Your task to perform on an android device: Open wifi settings Image 0: 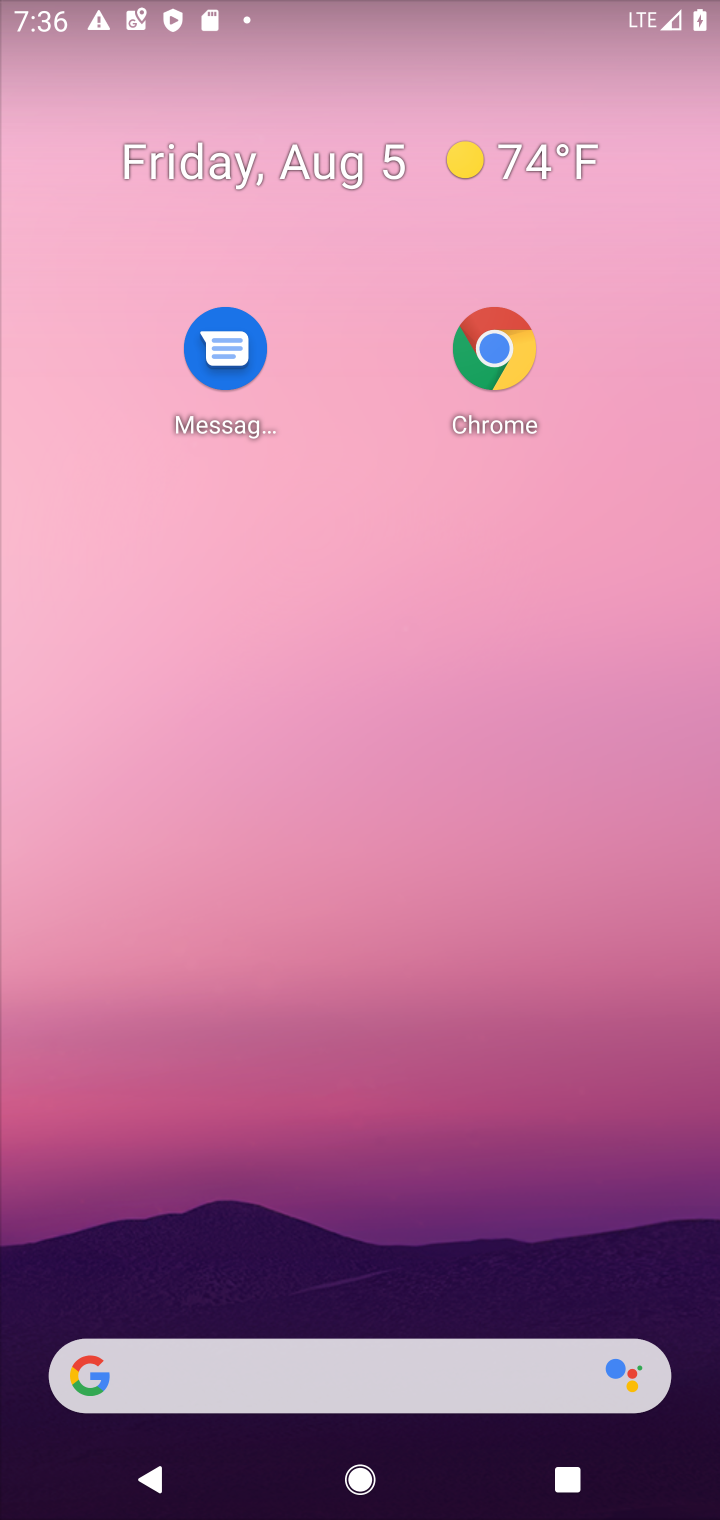
Step 0: press home button
Your task to perform on an android device: Open wifi settings Image 1: 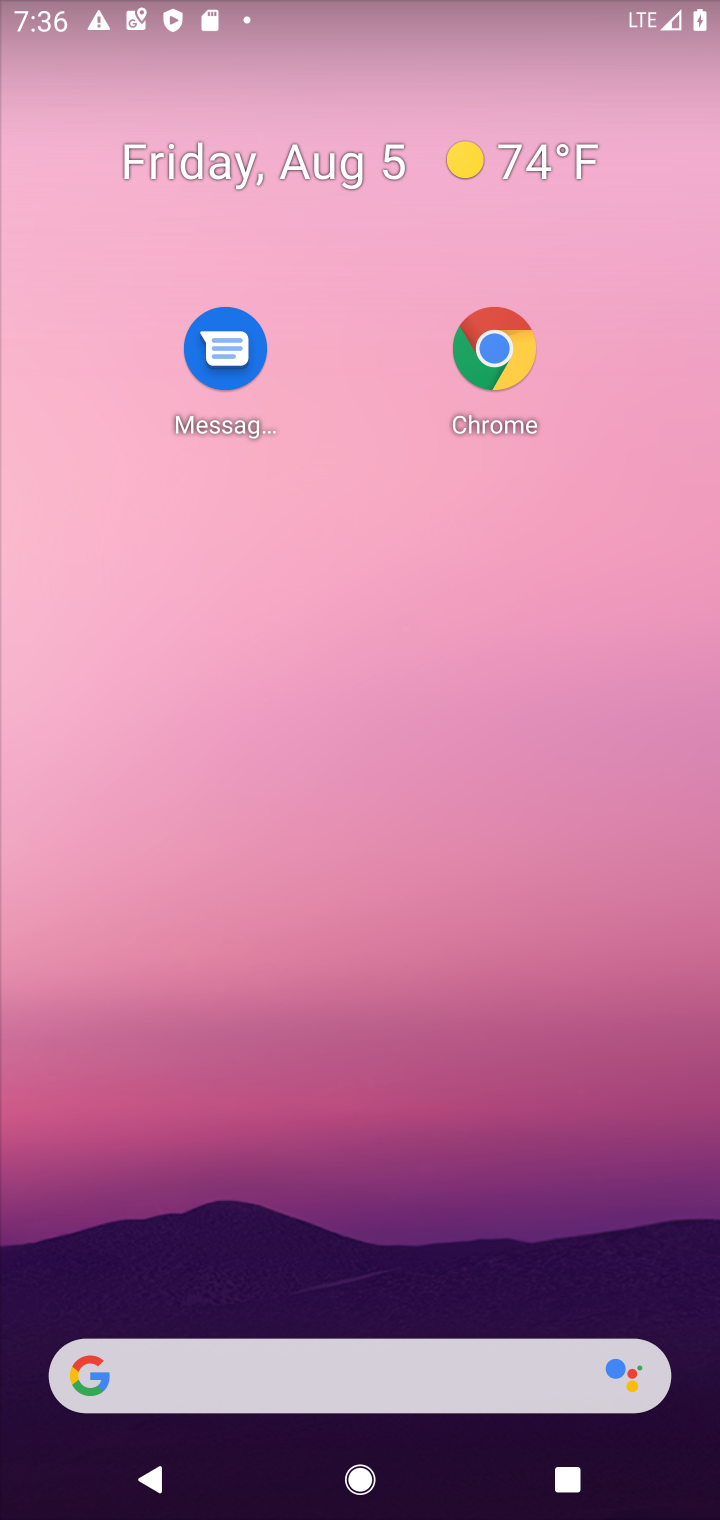
Step 1: drag from (421, 1368) to (386, 159)
Your task to perform on an android device: Open wifi settings Image 2: 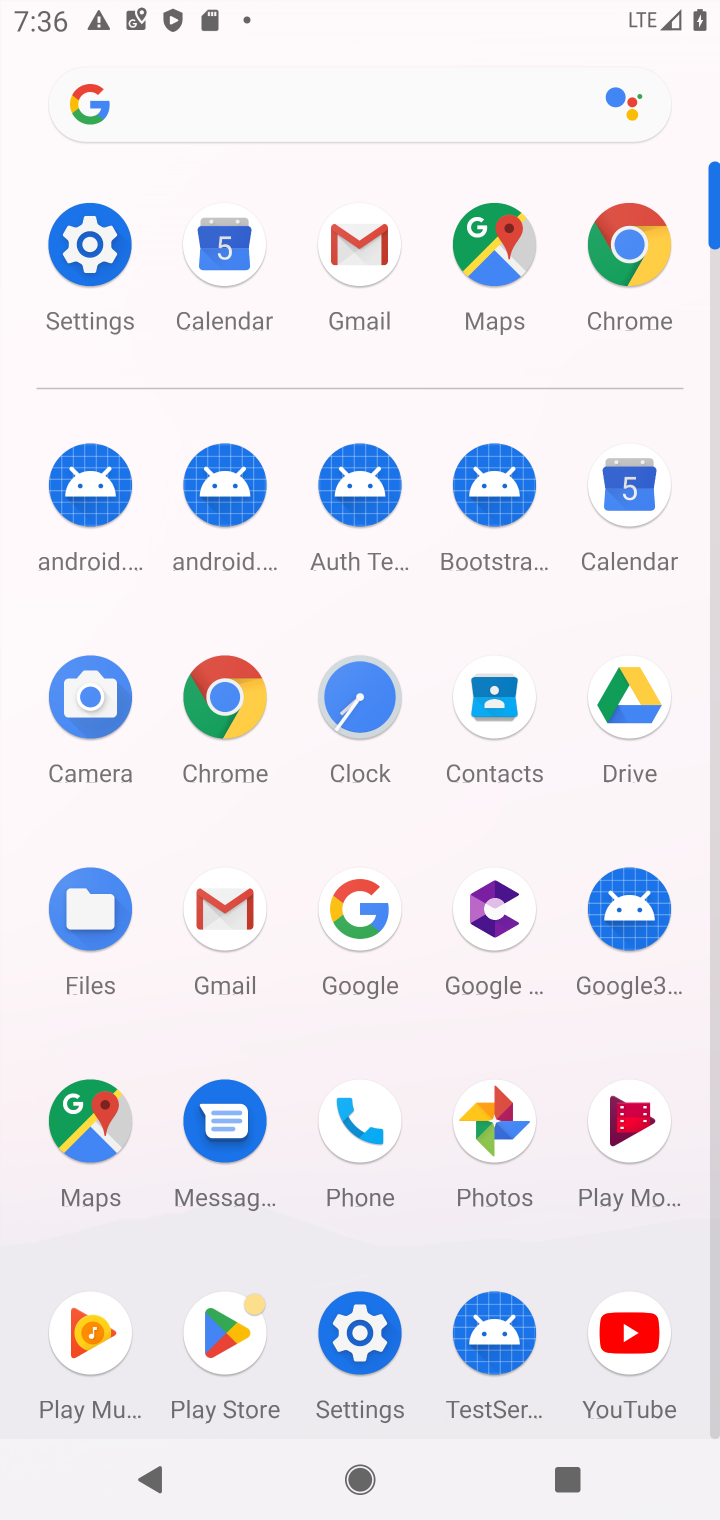
Step 2: click (75, 267)
Your task to perform on an android device: Open wifi settings Image 3: 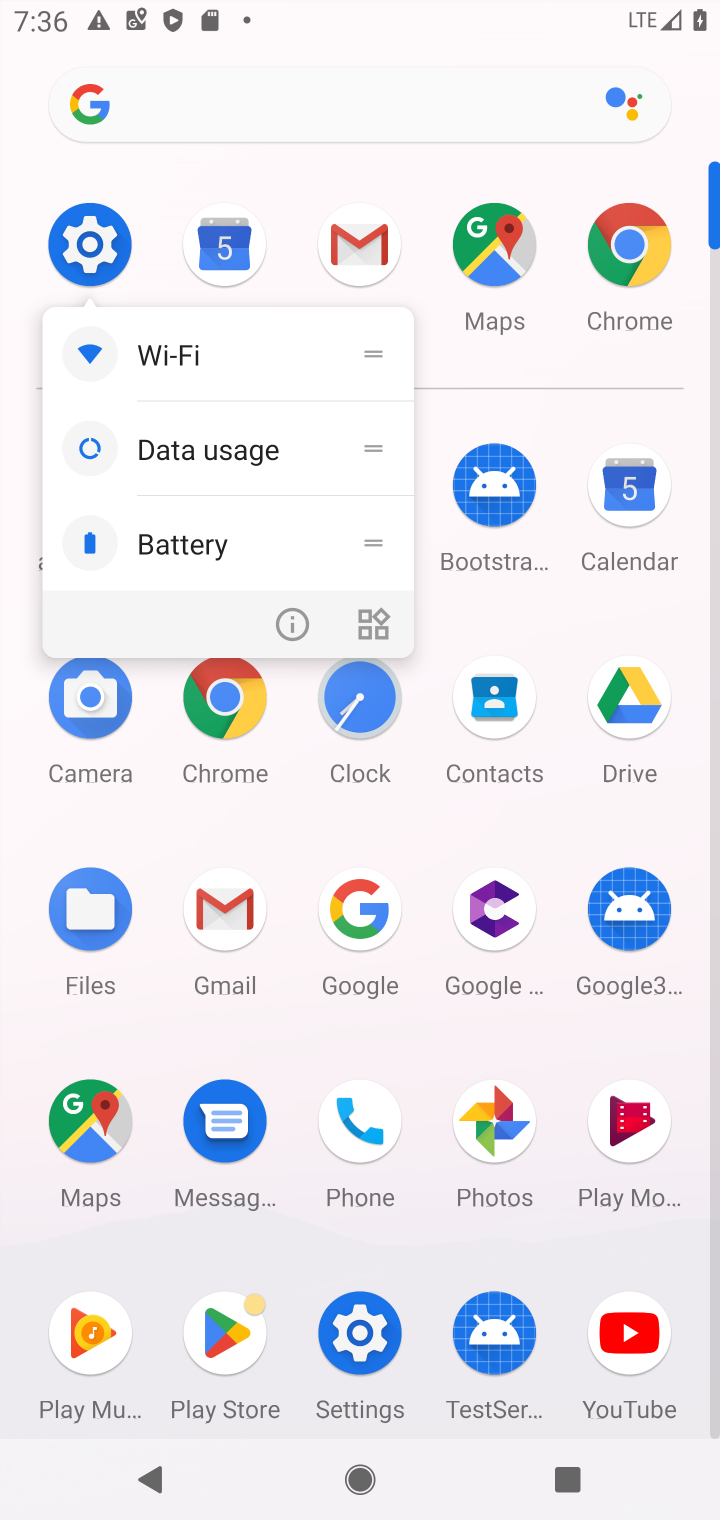
Step 3: click (89, 278)
Your task to perform on an android device: Open wifi settings Image 4: 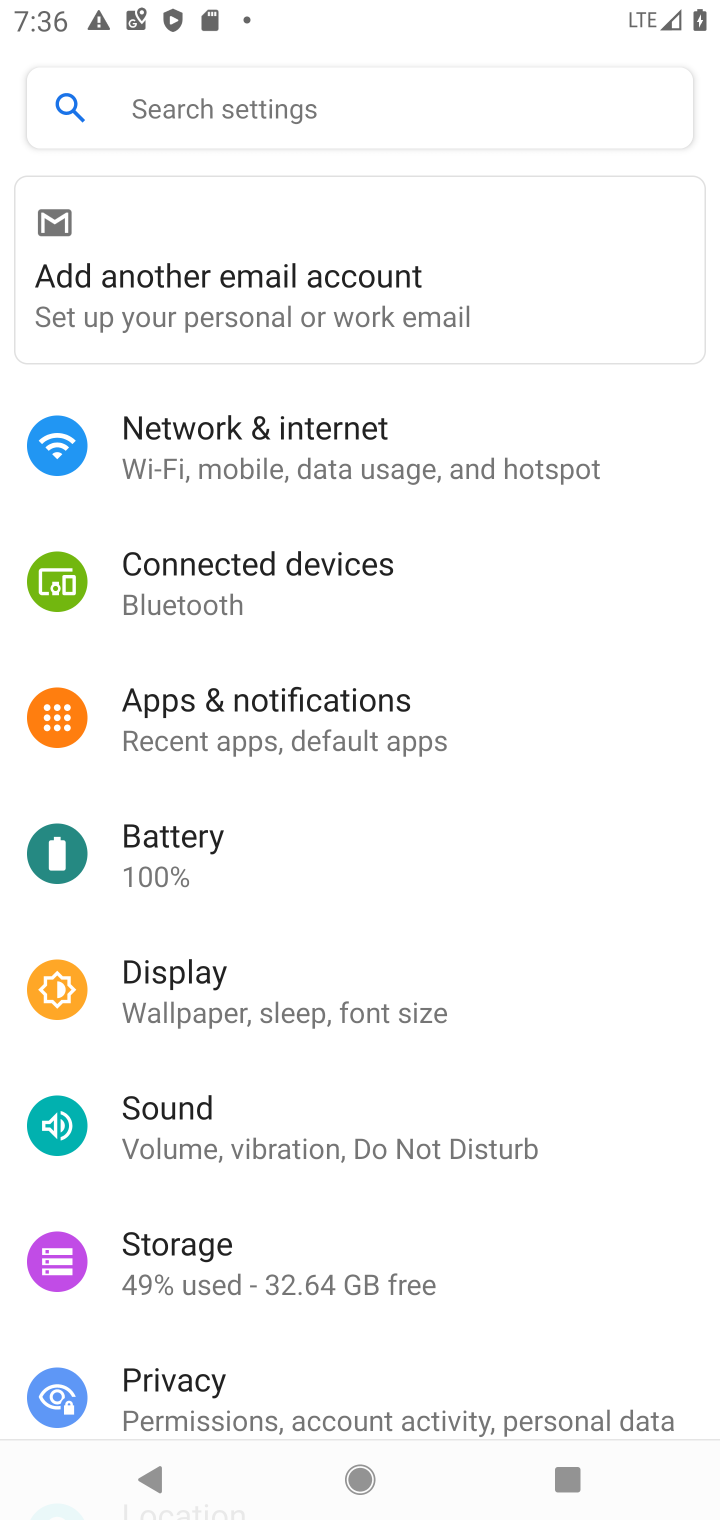
Step 4: click (301, 444)
Your task to perform on an android device: Open wifi settings Image 5: 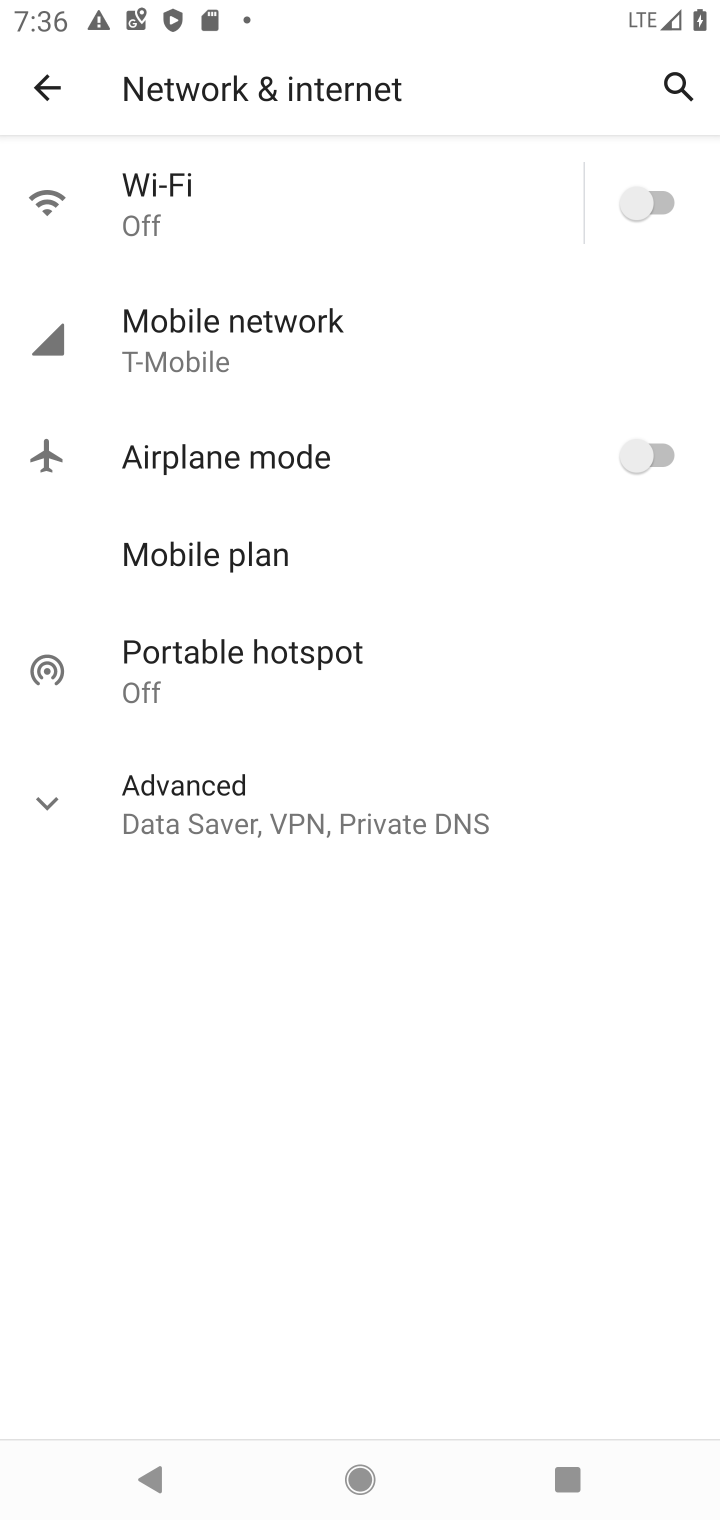
Step 5: click (184, 241)
Your task to perform on an android device: Open wifi settings Image 6: 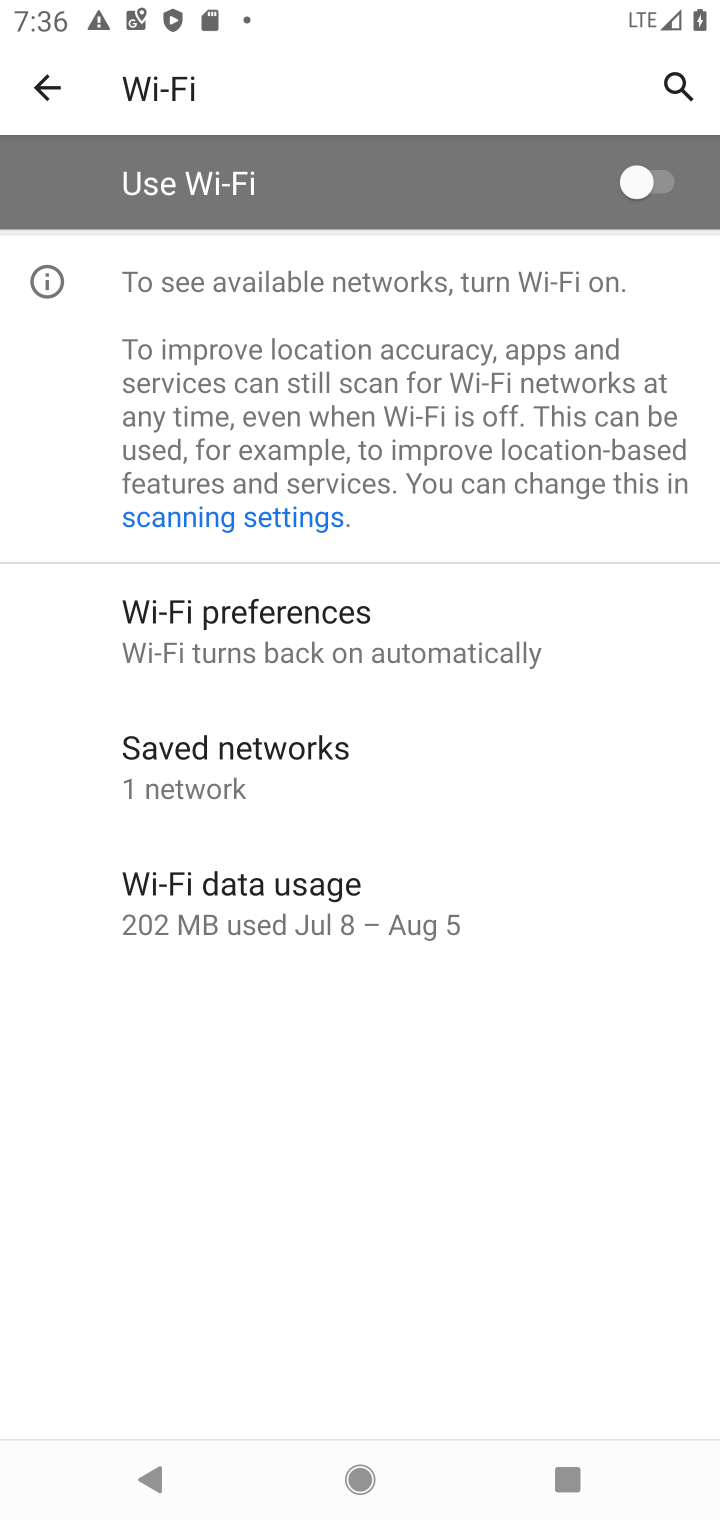
Step 6: task complete